Your task to perform on an android device: open chrome privacy settings Image 0: 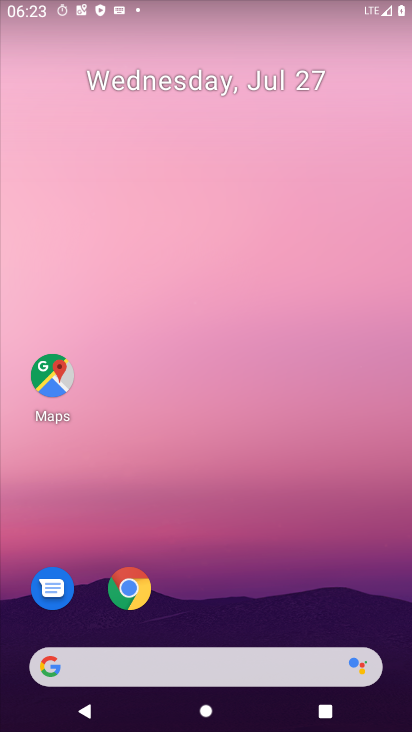
Step 0: drag from (307, 649) to (383, 12)
Your task to perform on an android device: open chrome privacy settings Image 1: 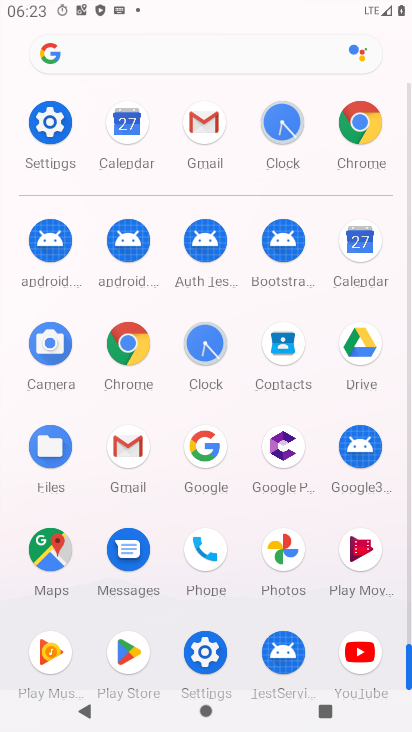
Step 1: click (57, 122)
Your task to perform on an android device: open chrome privacy settings Image 2: 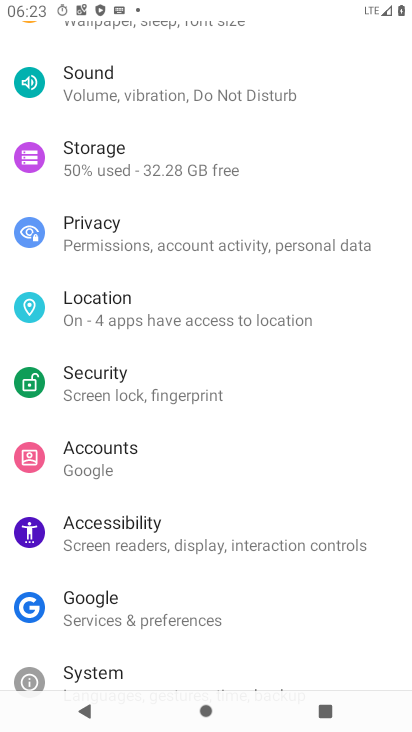
Step 2: click (107, 228)
Your task to perform on an android device: open chrome privacy settings Image 3: 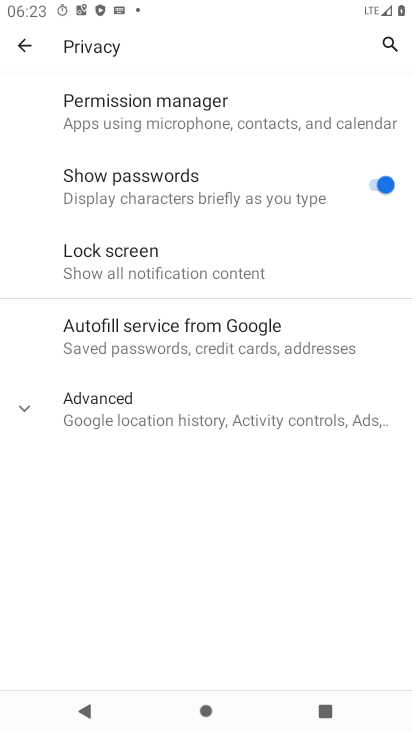
Step 3: press home button
Your task to perform on an android device: open chrome privacy settings Image 4: 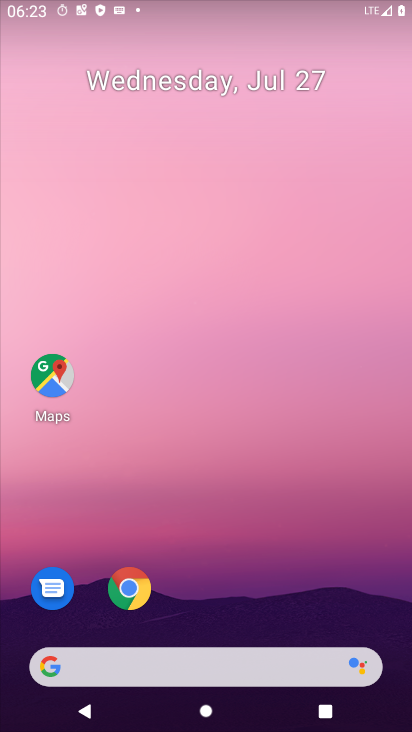
Step 4: drag from (191, 660) to (294, 0)
Your task to perform on an android device: open chrome privacy settings Image 5: 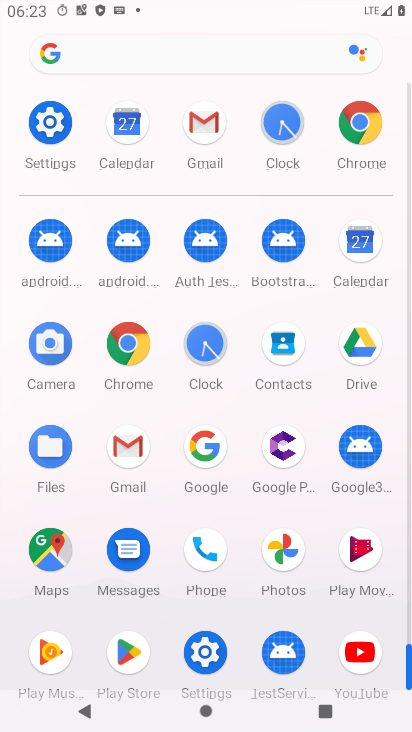
Step 5: click (121, 348)
Your task to perform on an android device: open chrome privacy settings Image 6: 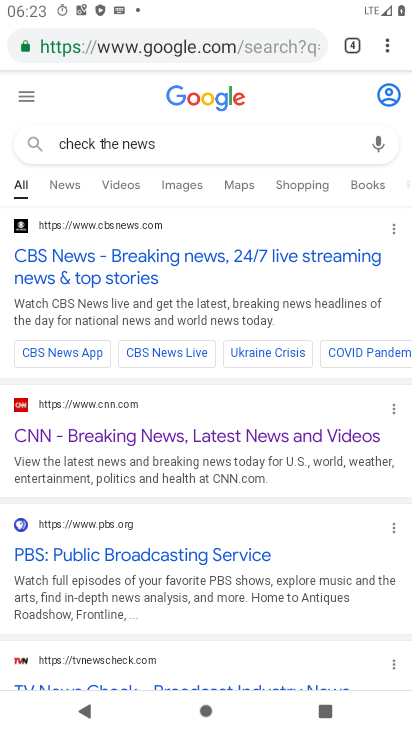
Step 6: click (390, 47)
Your task to perform on an android device: open chrome privacy settings Image 7: 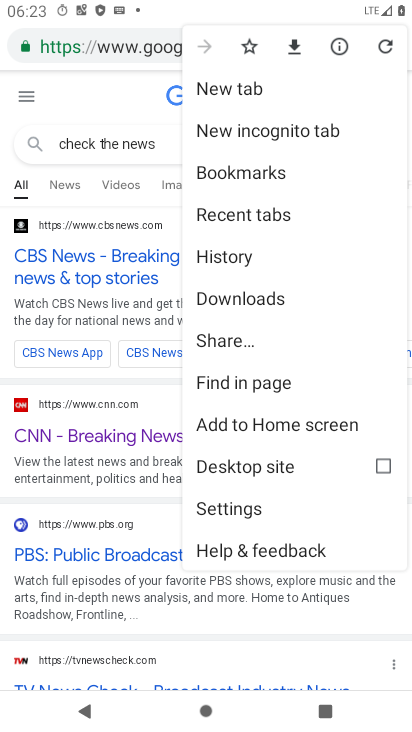
Step 7: click (223, 509)
Your task to perform on an android device: open chrome privacy settings Image 8: 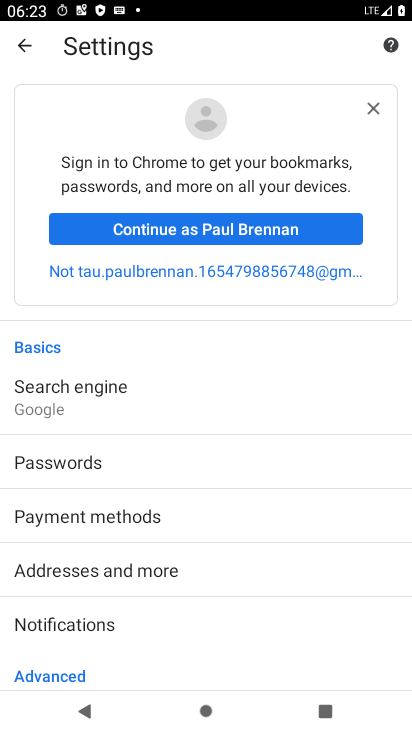
Step 8: drag from (128, 662) to (202, 334)
Your task to perform on an android device: open chrome privacy settings Image 9: 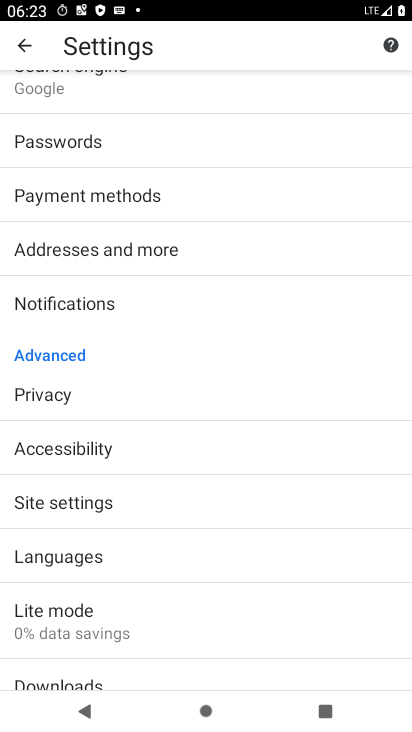
Step 9: click (79, 411)
Your task to perform on an android device: open chrome privacy settings Image 10: 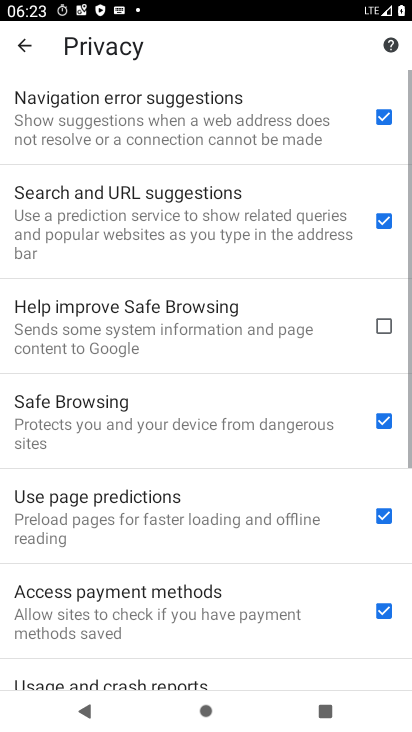
Step 10: task complete